Your task to perform on an android device: What's on my calendar today? Image 0: 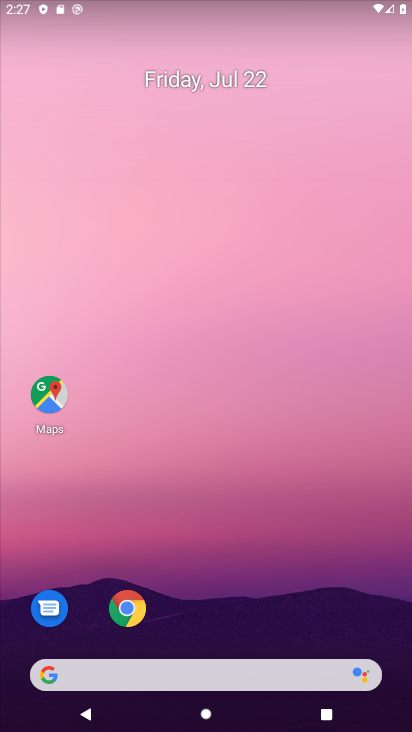
Step 0: drag from (320, 574) to (250, 137)
Your task to perform on an android device: What's on my calendar today? Image 1: 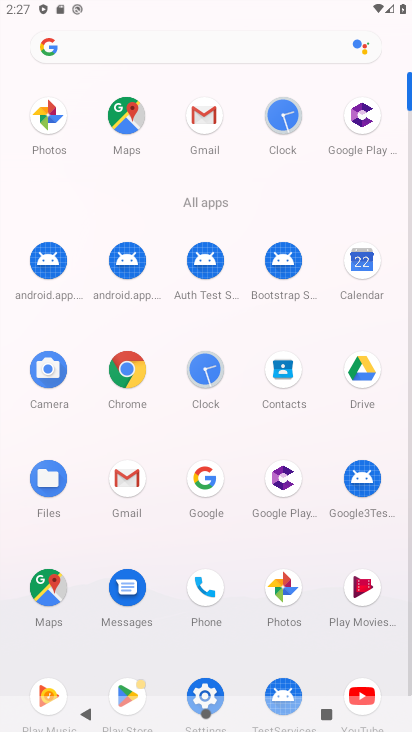
Step 1: click (356, 273)
Your task to perform on an android device: What's on my calendar today? Image 2: 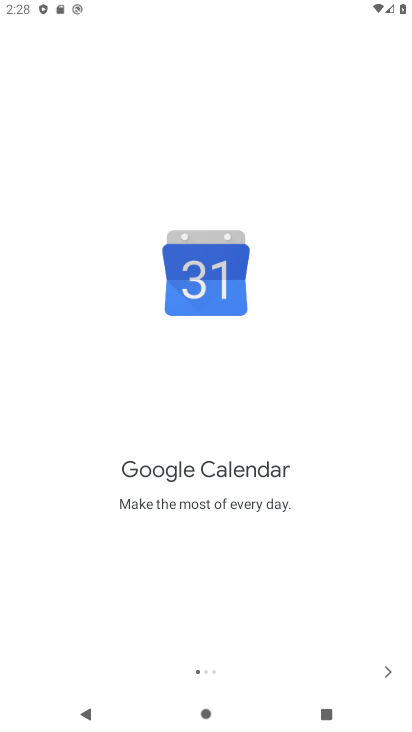
Step 2: click (384, 670)
Your task to perform on an android device: What's on my calendar today? Image 3: 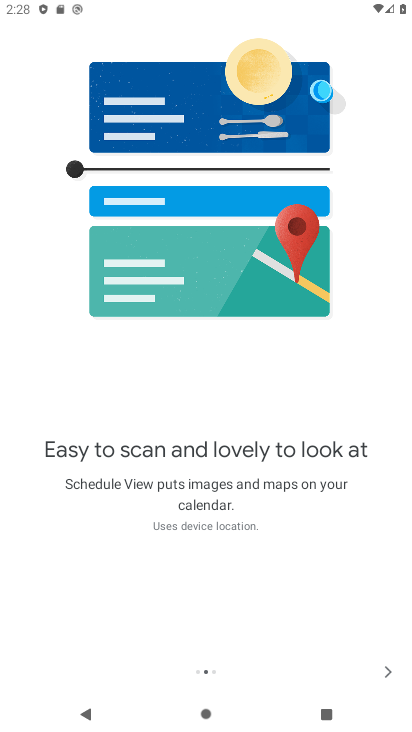
Step 3: click (384, 670)
Your task to perform on an android device: What's on my calendar today? Image 4: 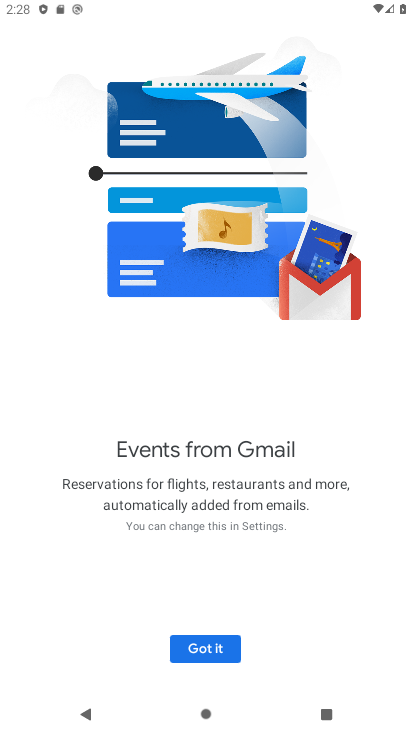
Step 4: click (192, 655)
Your task to perform on an android device: What's on my calendar today? Image 5: 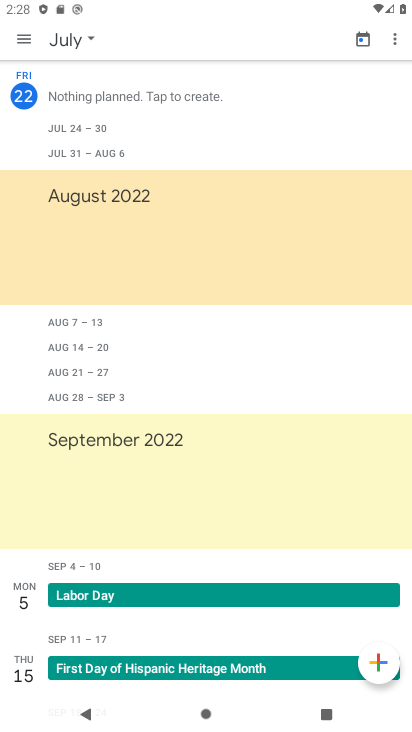
Step 5: click (20, 35)
Your task to perform on an android device: What's on my calendar today? Image 6: 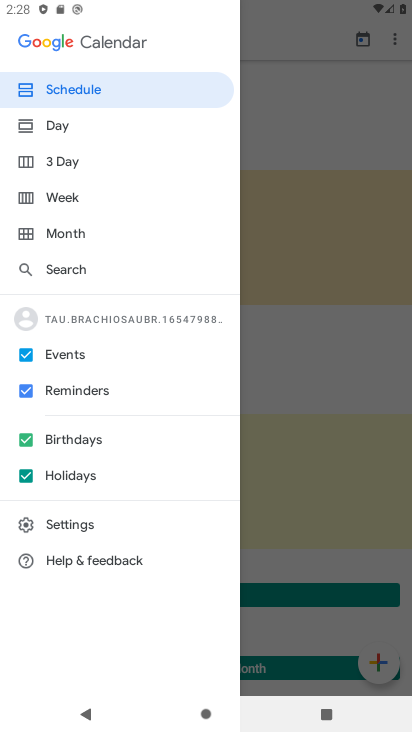
Step 6: click (66, 121)
Your task to perform on an android device: What's on my calendar today? Image 7: 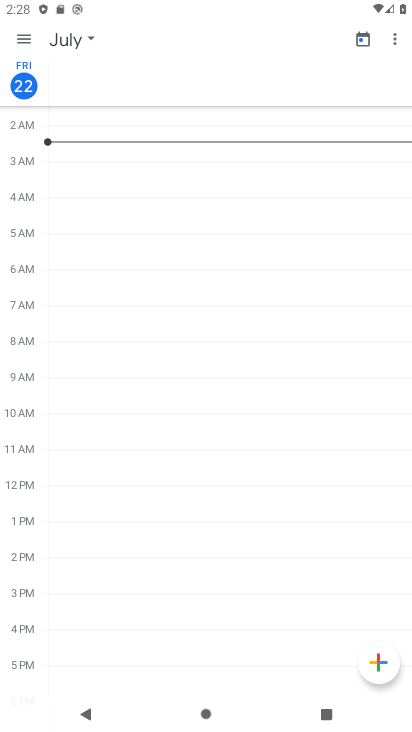
Step 7: task complete